Your task to perform on an android device: Add asus zenbook to the cart on walmart.com Image 0: 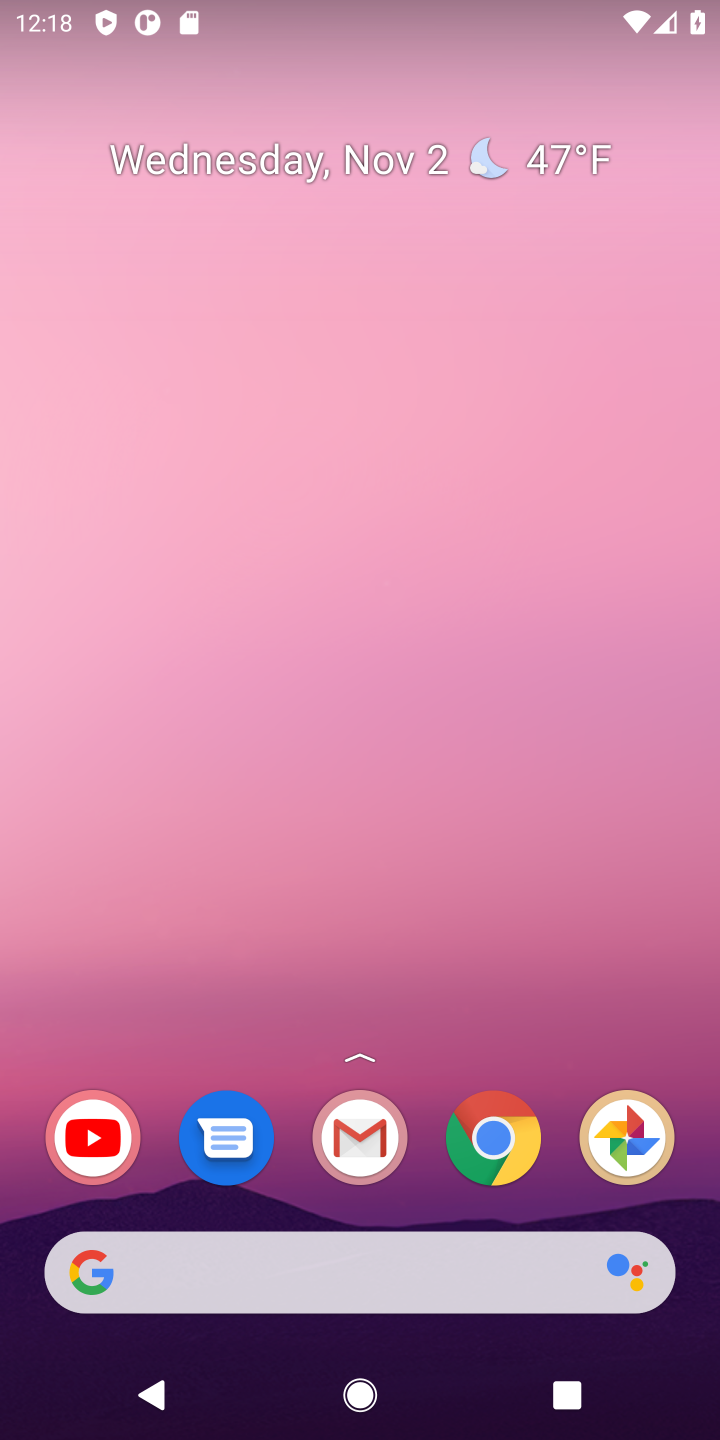
Step 0: drag from (460, 1340) to (535, 8)
Your task to perform on an android device: Add asus zenbook to the cart on walmart.com Image 1: 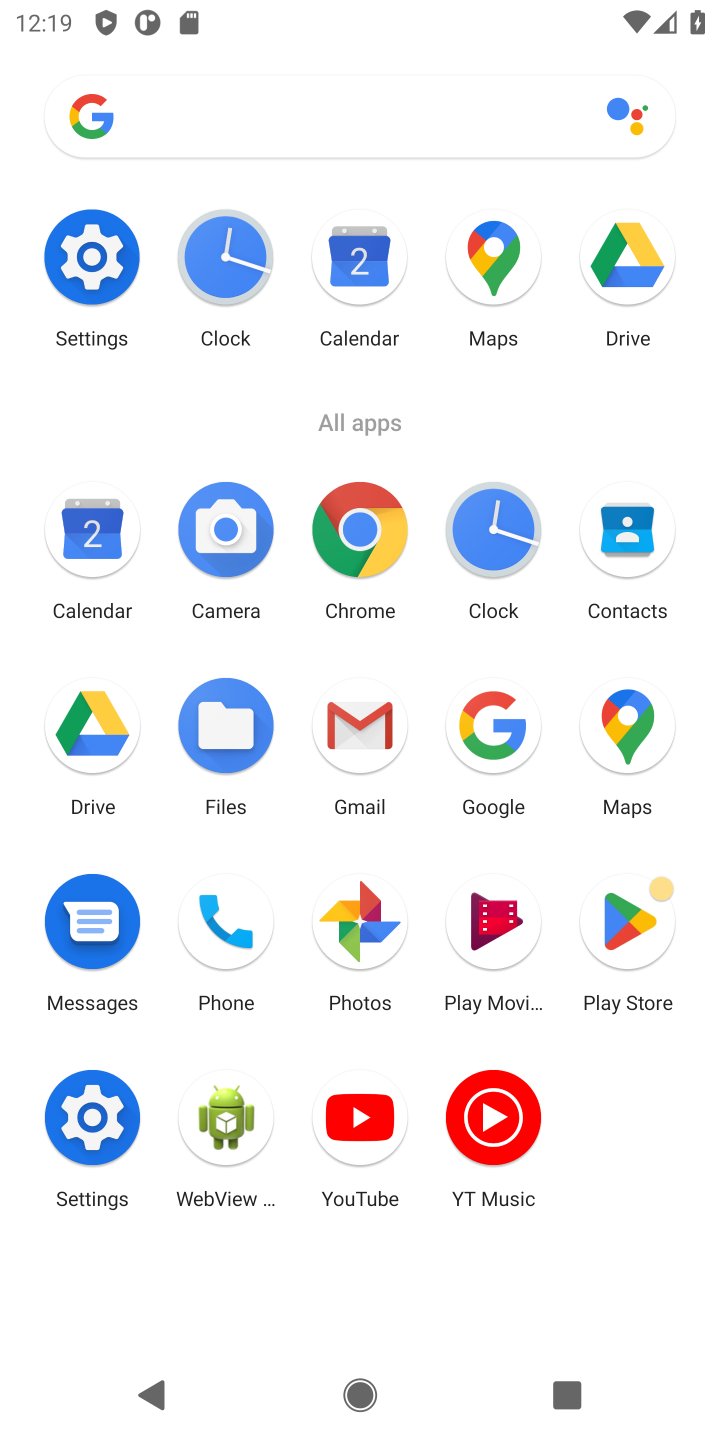
Step 1: click (364, 521)
Your task to perform on an android device: Add asus zenbook to the cart on walmart.com Image 2: 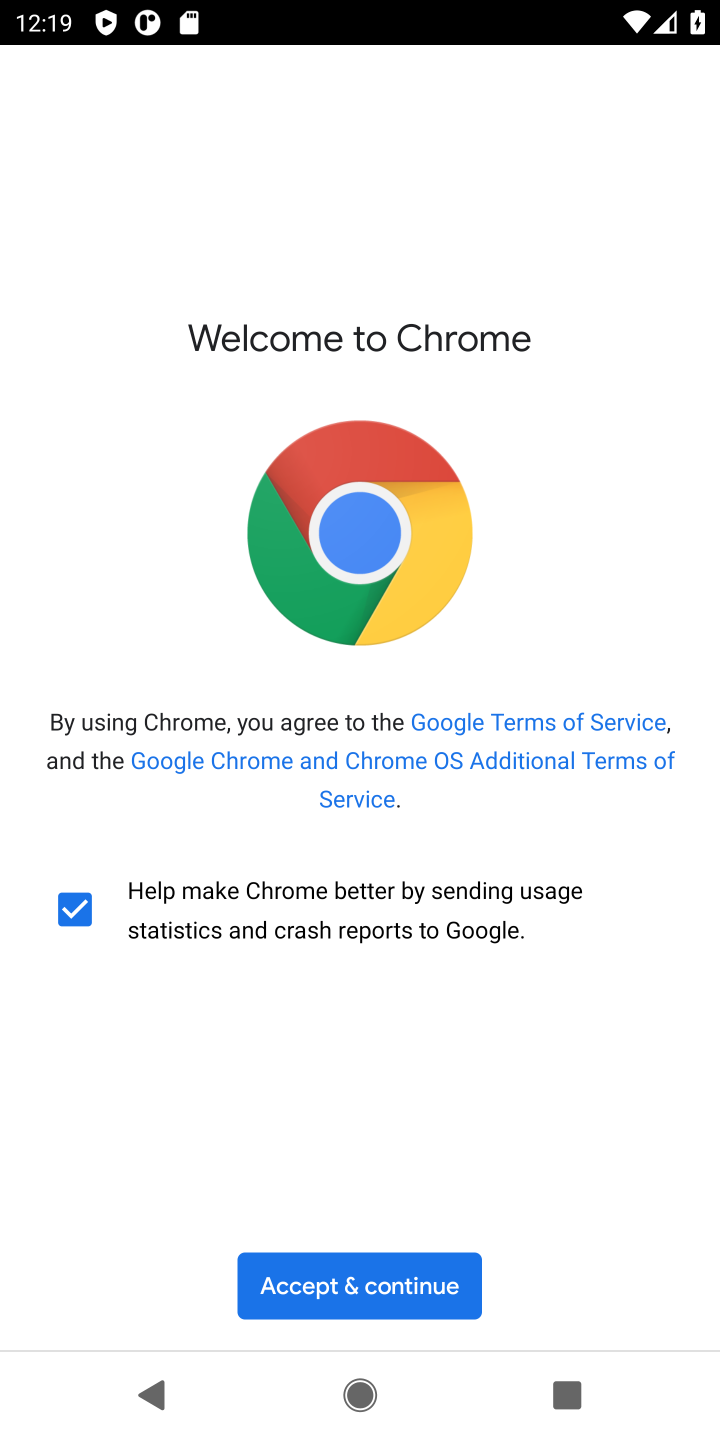
Step 2: click (355, 1288)
Your task to perform on an android device: Add asus zenbook to the cart on walmart.com Image 3: 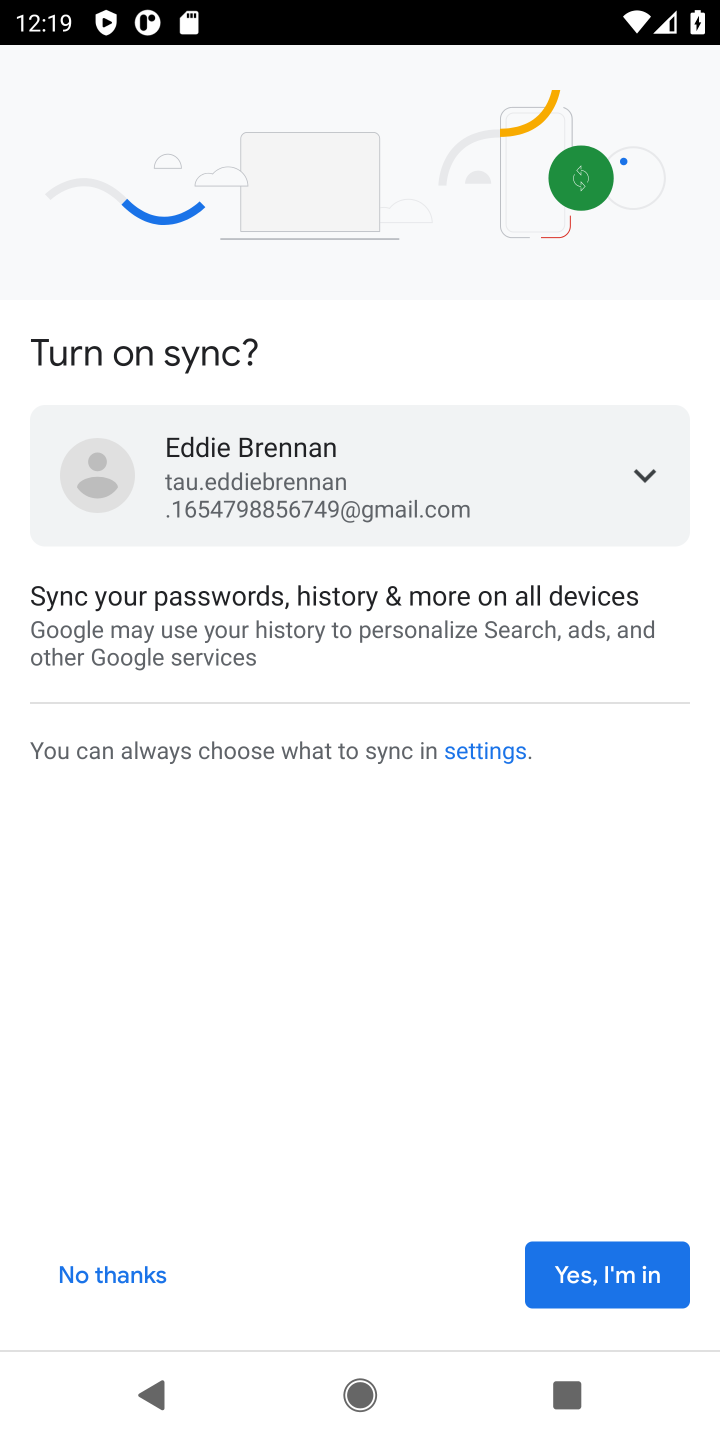
Step 3: click (586, 1256)
Your task to perform on an android device: Add asus zenbook to the cart on walmart.com Image 4: 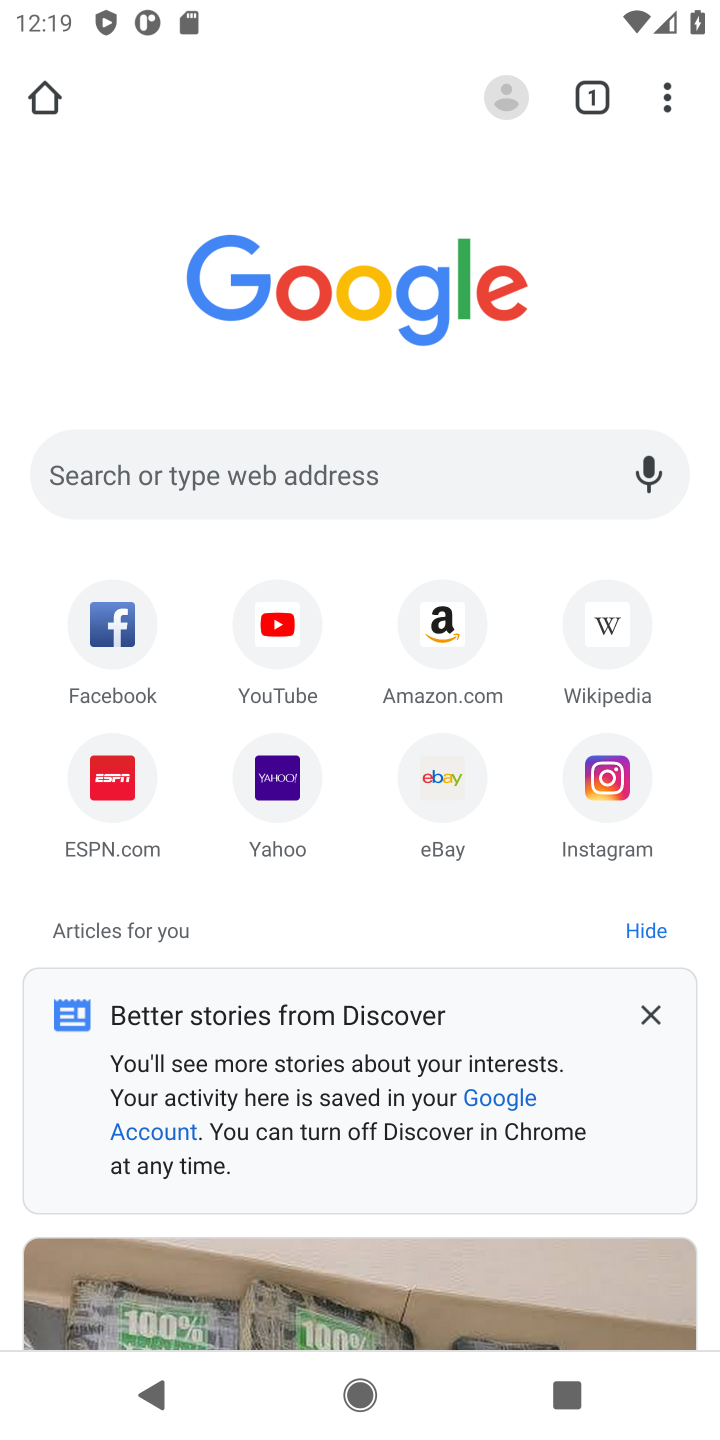
Step 4: click (334, 467)
Your task to perform on an android device: Add asus zenbook to the cart on walmart.com Image 5: 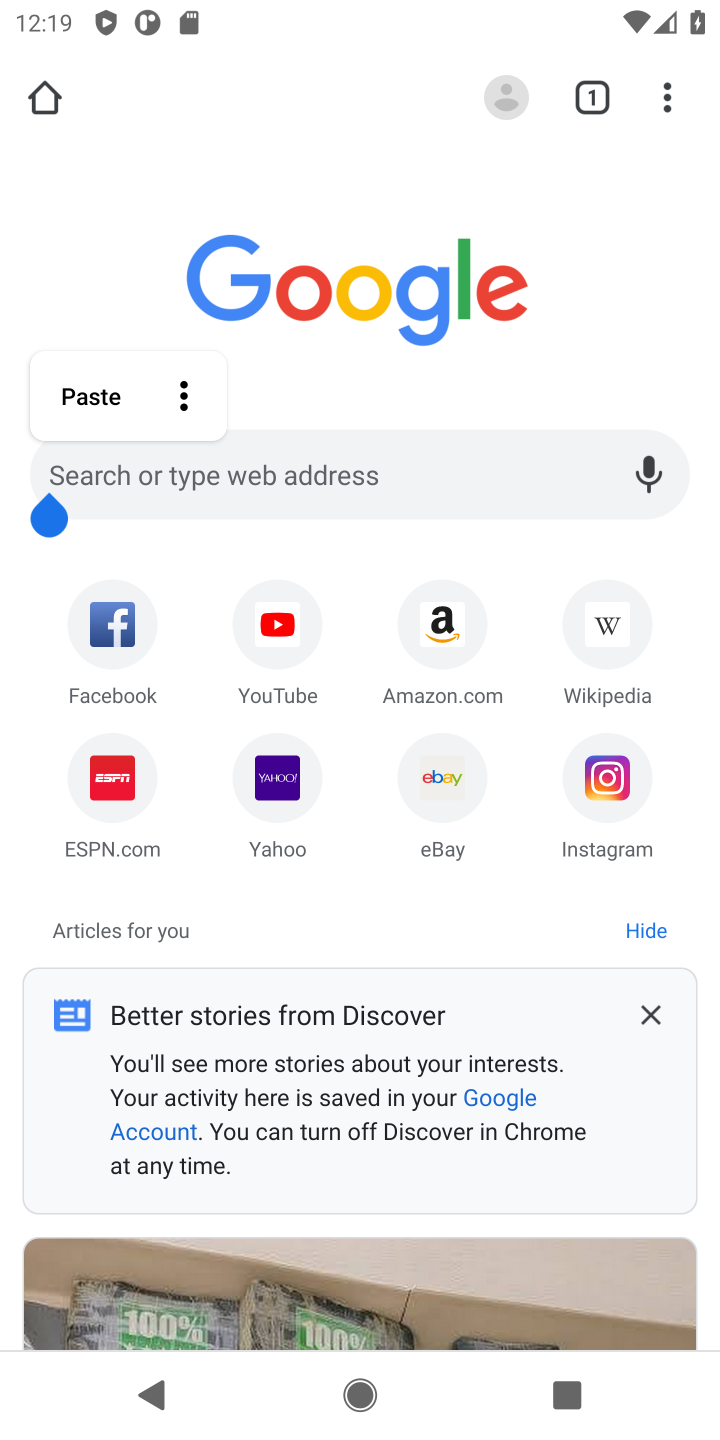
Step 5: click (210, 489)
Your task to perform on an android device: Add asus zenbook to the cart on walmart.com Image 6: 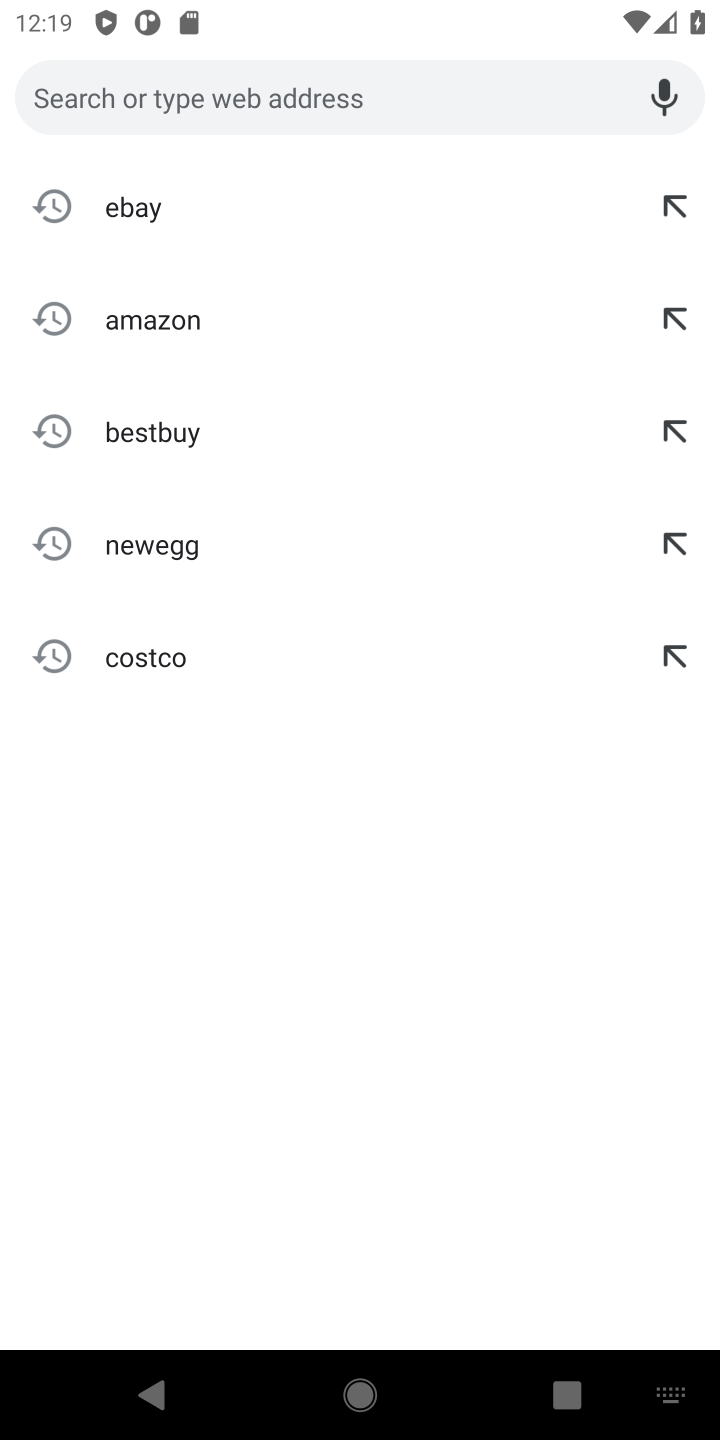
Step 6: type "walmart.com"
Your task to perform on an android device: Add asus zenbook to the cart on walmart.com Image 7: 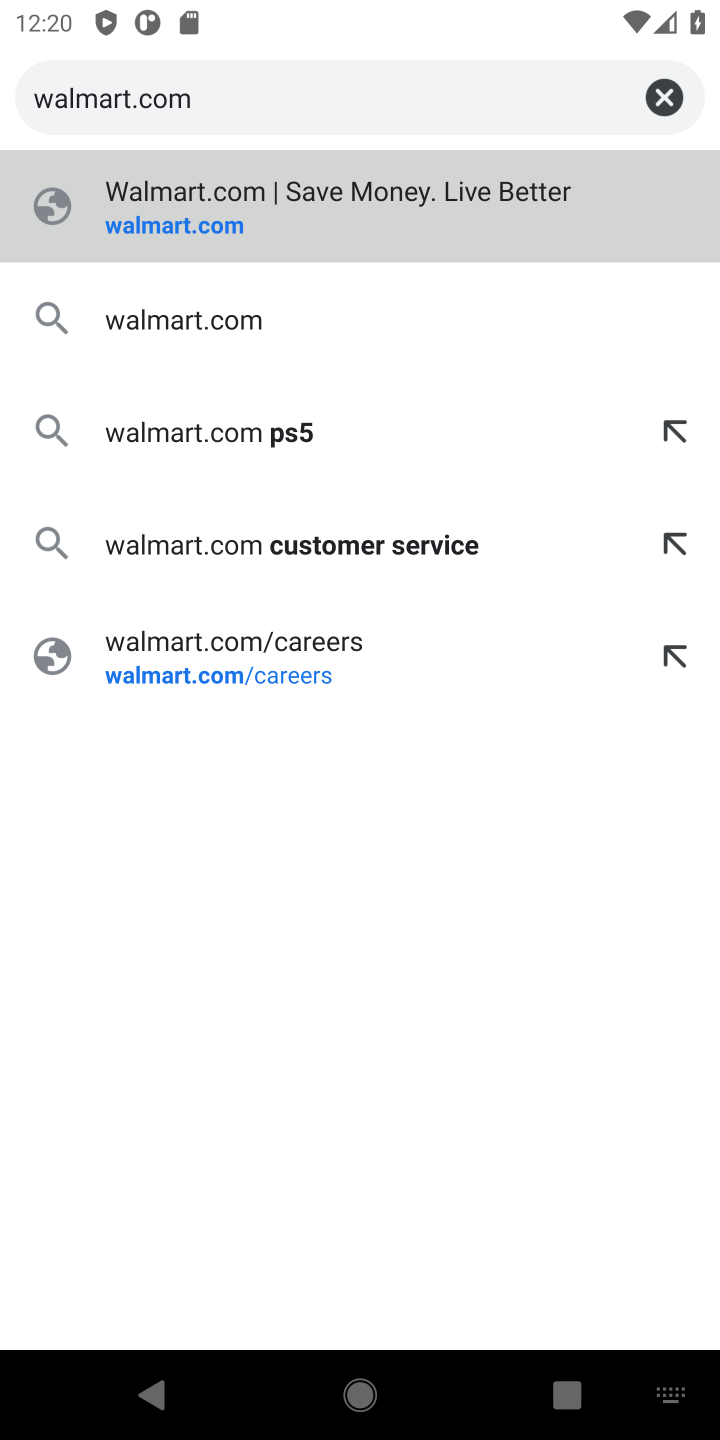
Step 7: click (223, 223)
Your task to perform on an android device: Add asus zenbook to the cart on walmart.com Image 8: 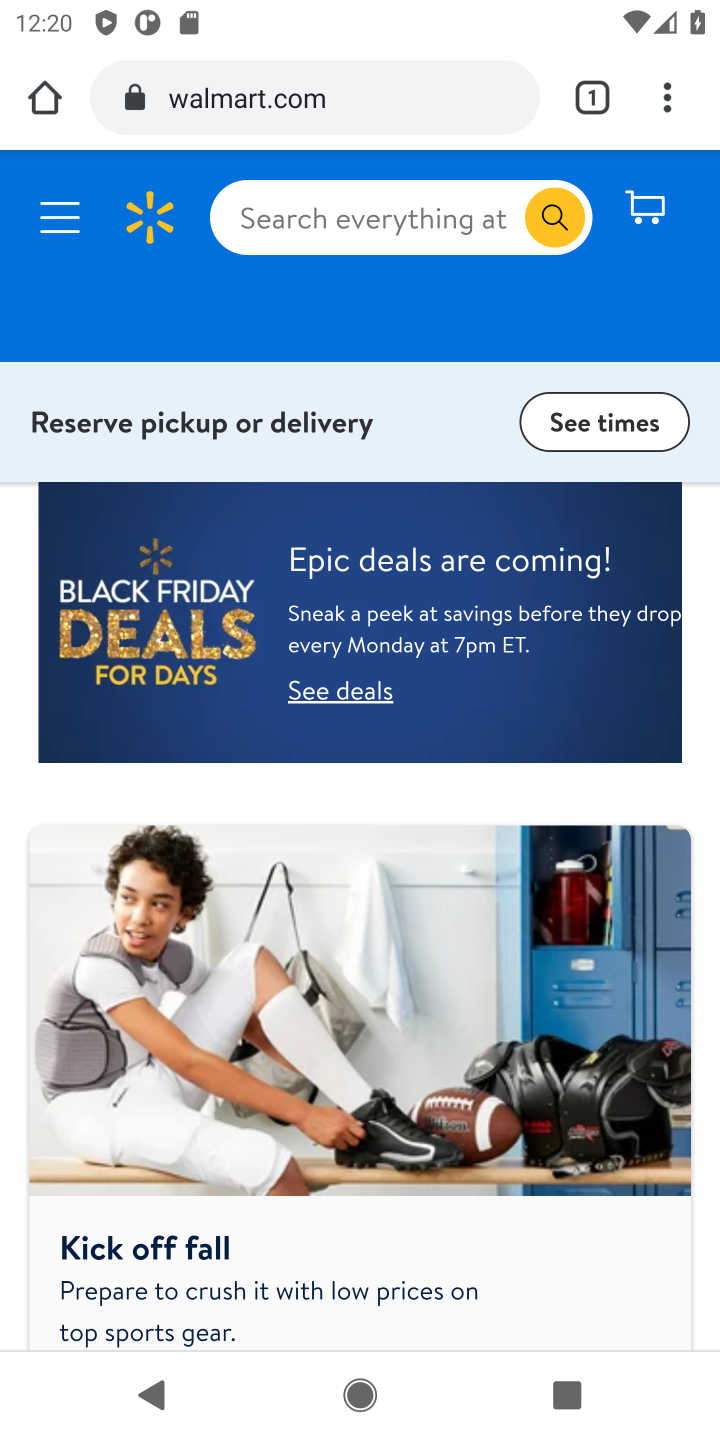
Step 8: click (299, 212)
Your task to perform on an android device: Add asus zenbook to the cart on walmart.com Image 9: 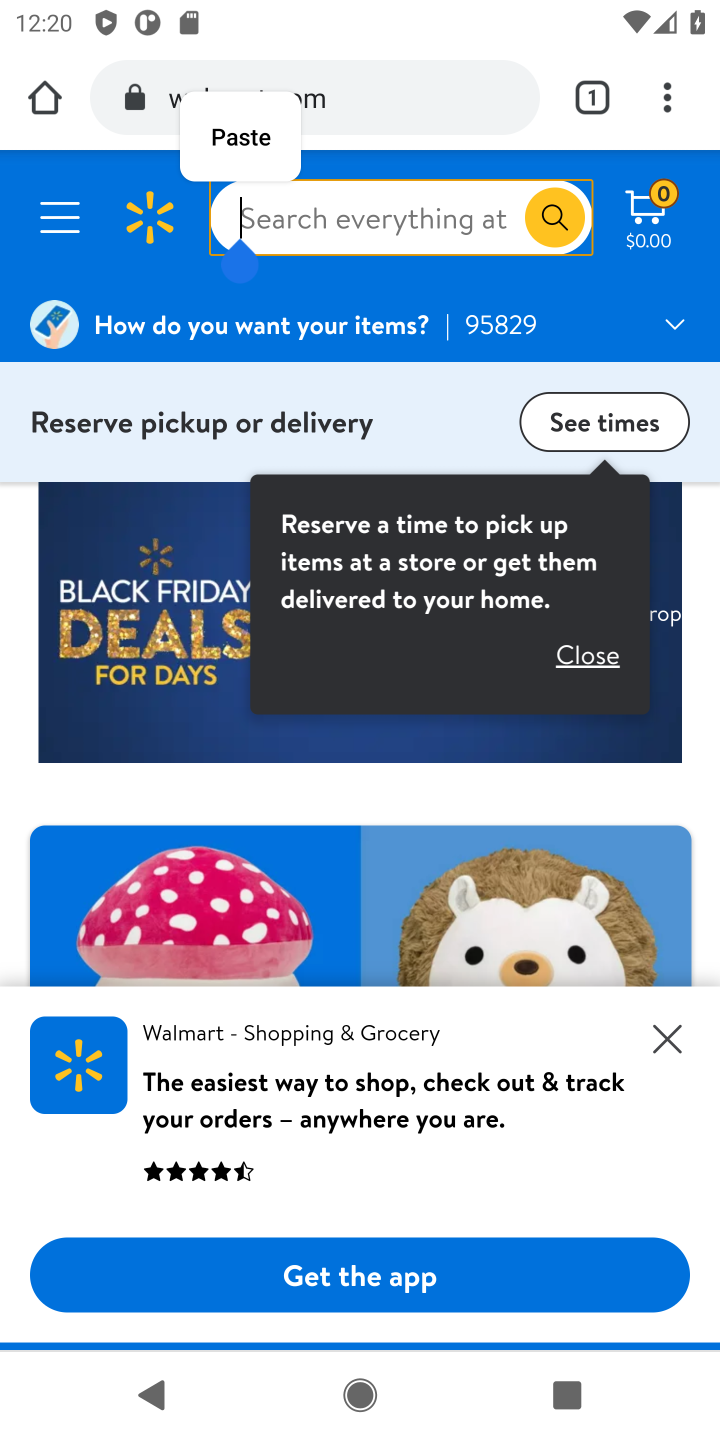
Step 9: type "asus zenbook"
Your task to perform on an android device: Add asus zenbook to the cart on walmart.com Image 10: 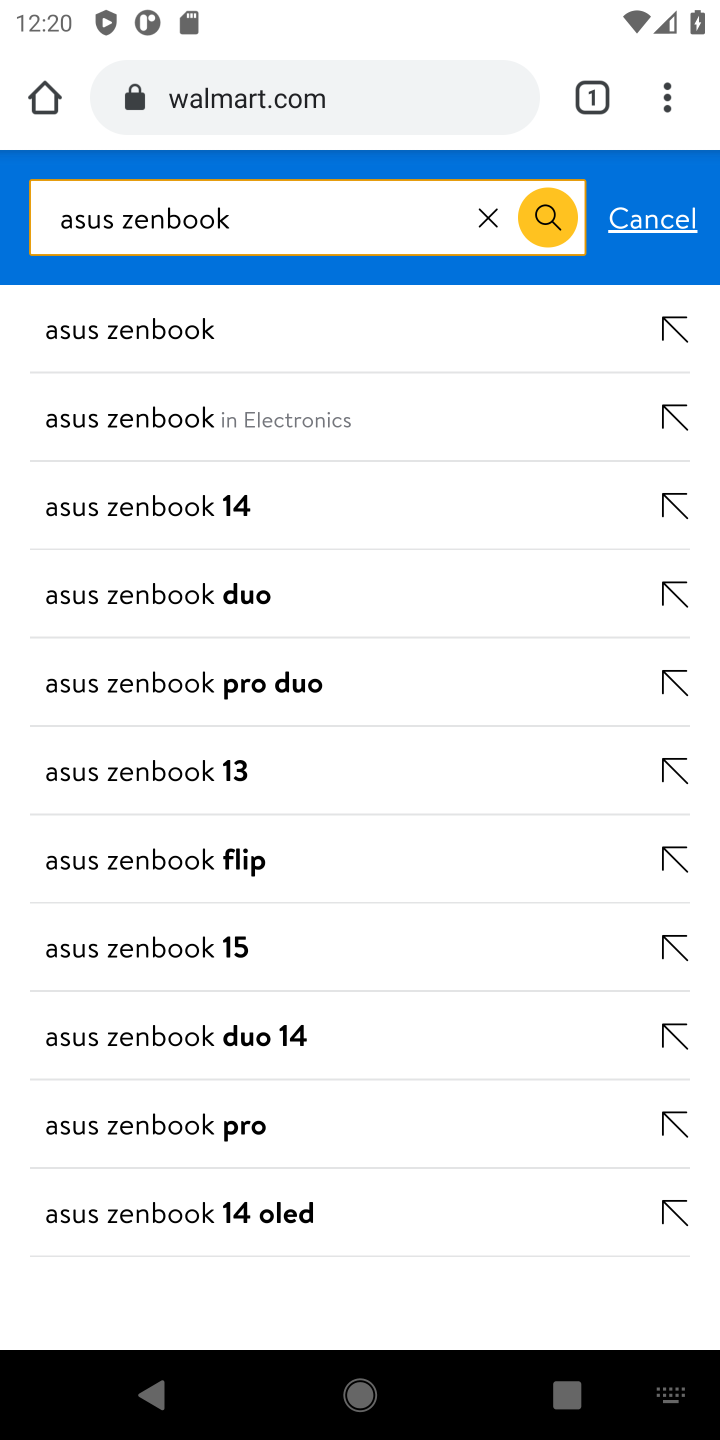
Step 10: click (541, 206)
Your task to perform on an android device: Add asus zenbook to the cart on walmart.com Image 11: 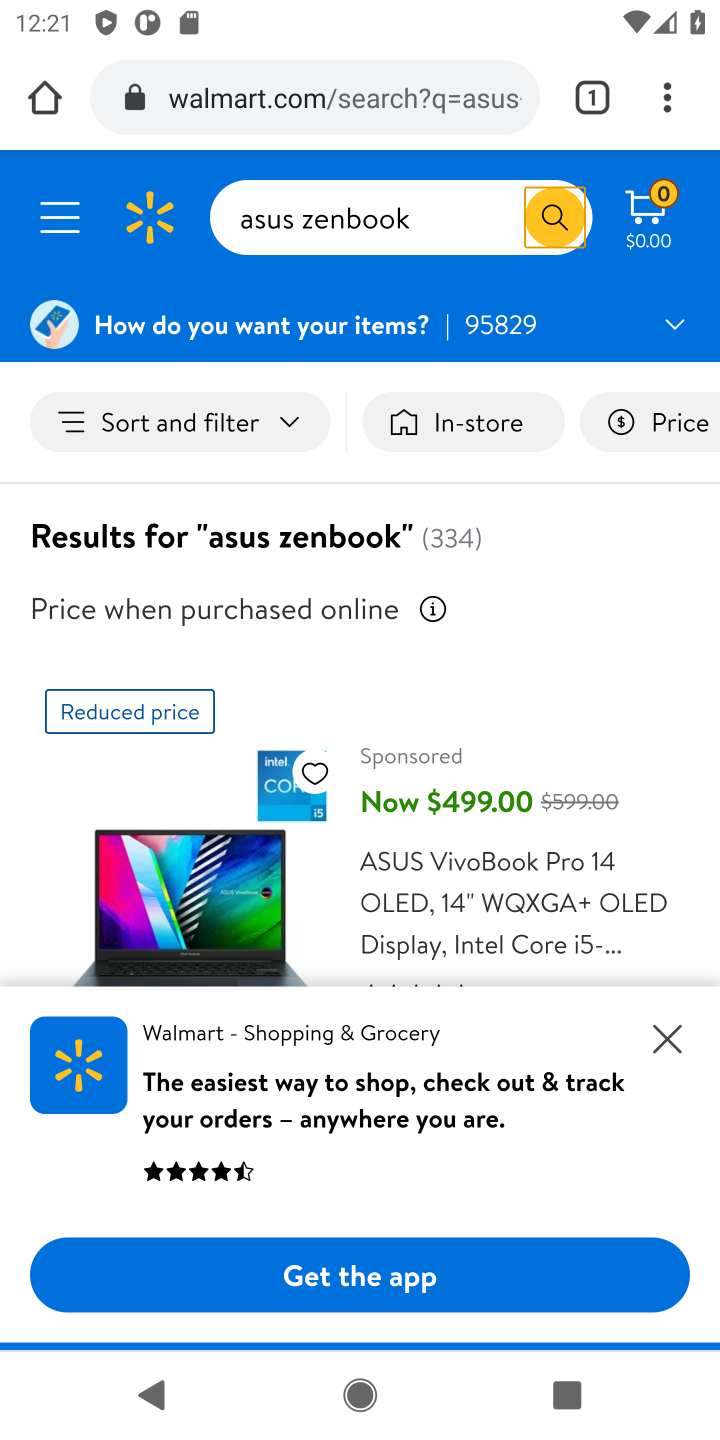
Step 11: drag from (384, 730) to (375, 389)
Your task to perform on an android device: Add asus zenbook to the cart on walmart.com Image 12: 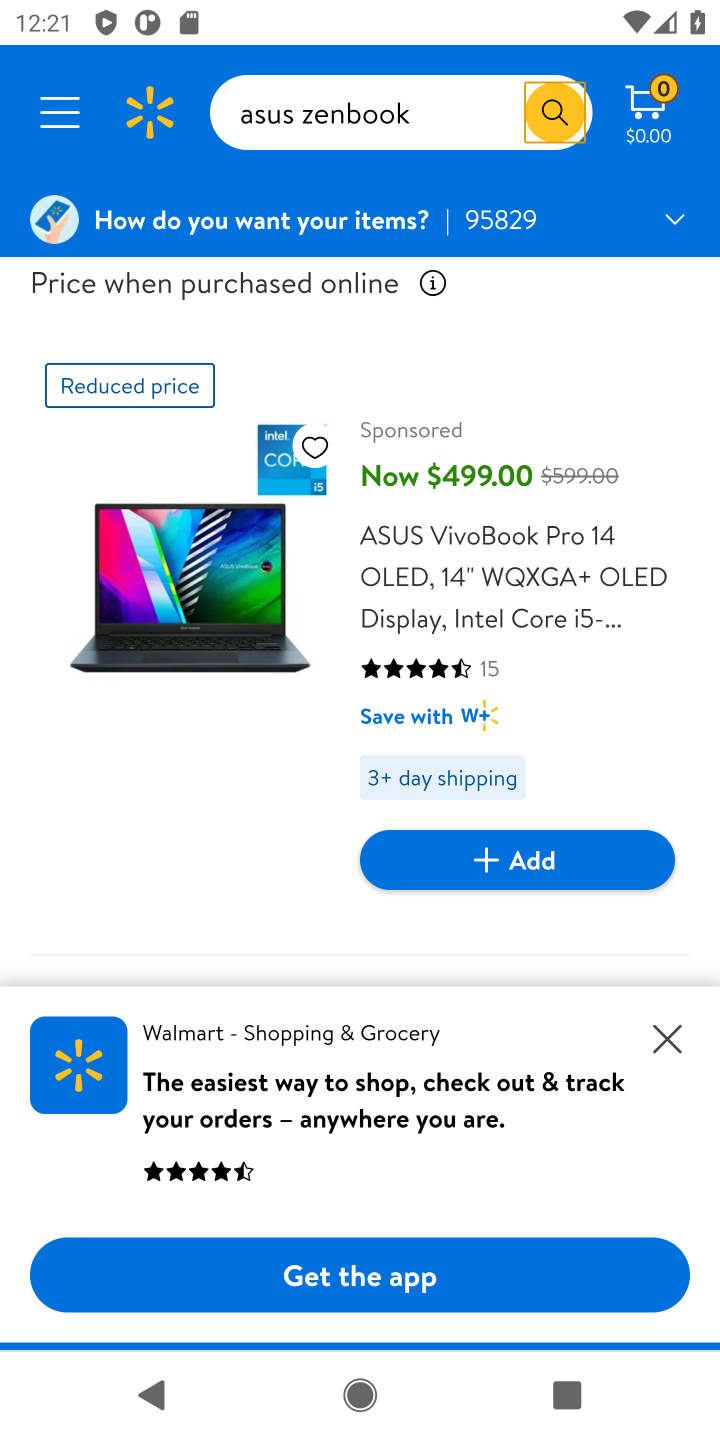
Step 12: click (279, 606)
Your task to perform on an android device: Add asus zenbook to the cart on walmart.com Image 13: 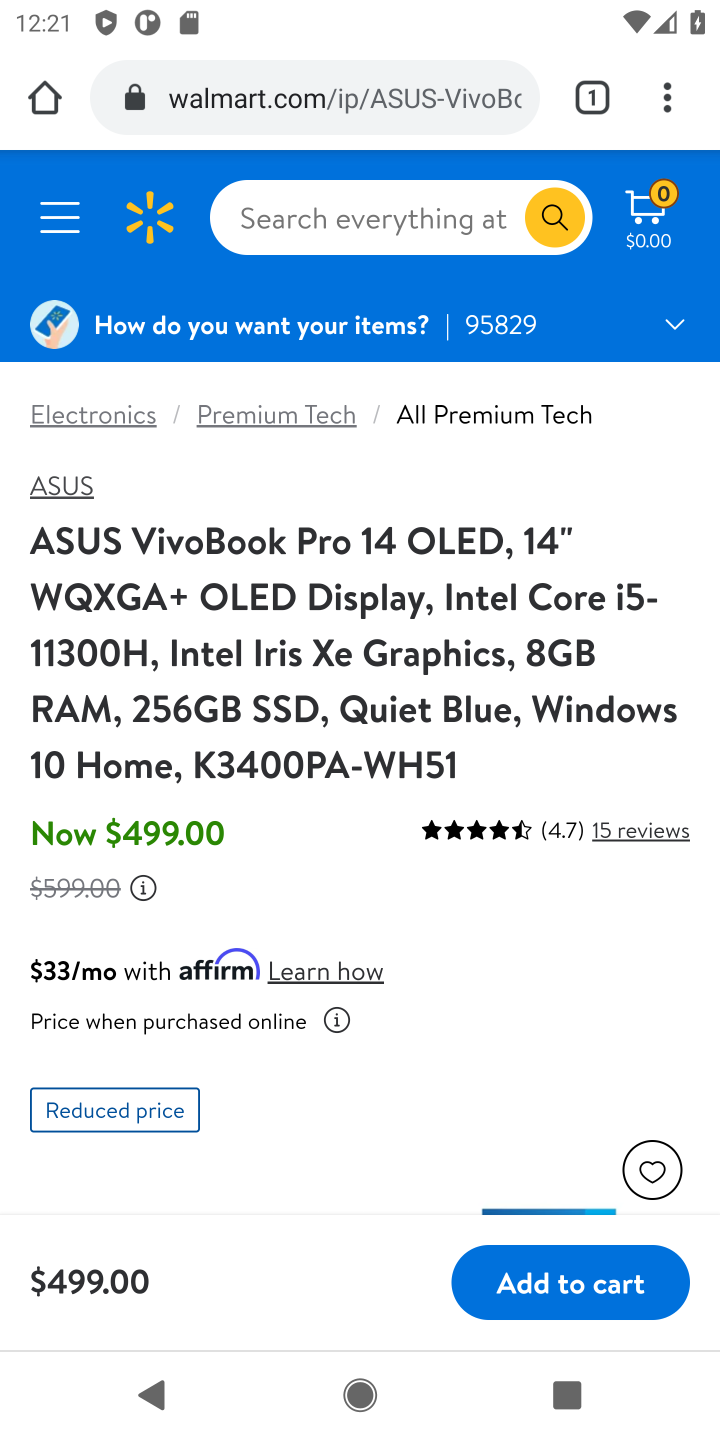
Step 13: click (567, 1284)
Your task to perform on an android device: Add asus zenbook to the cart on walmart.com Image 14: 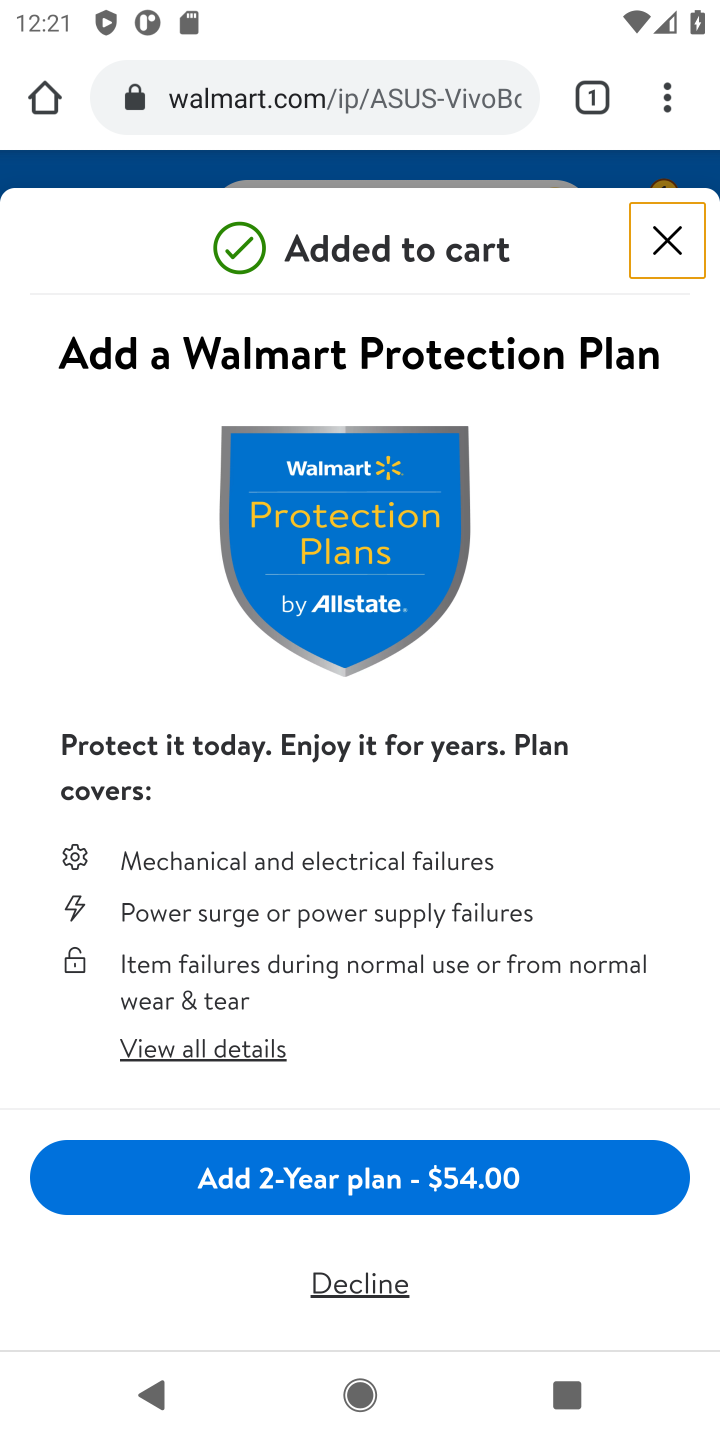
Step 14: task complete